Your task to perform on an android device: open a new tab in the chrome app Image 0: 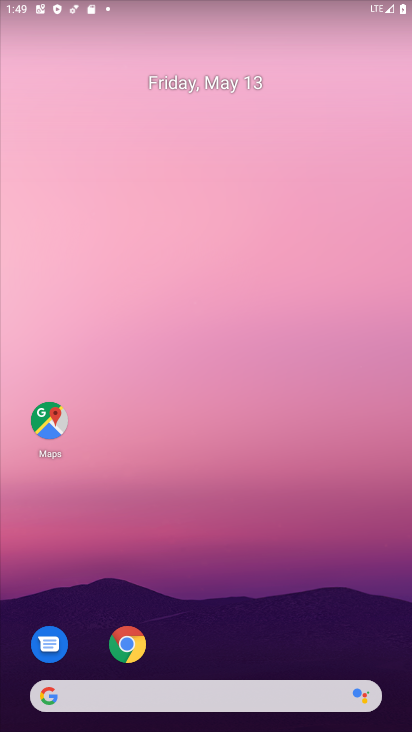
Step 0: drag from (336, 621) to (220, 35)
Your task to perform on an android device: open a new tab in the chrome app Image 1: 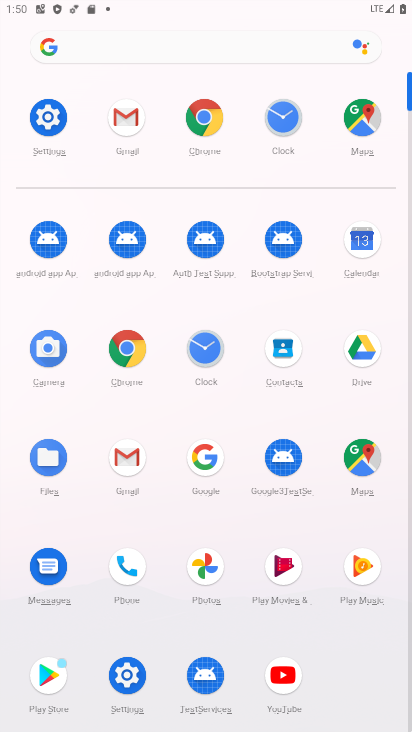
Step 1: click (137, 354)
Your task to perform on an android device: open a new tab in the chrome app Image 2: 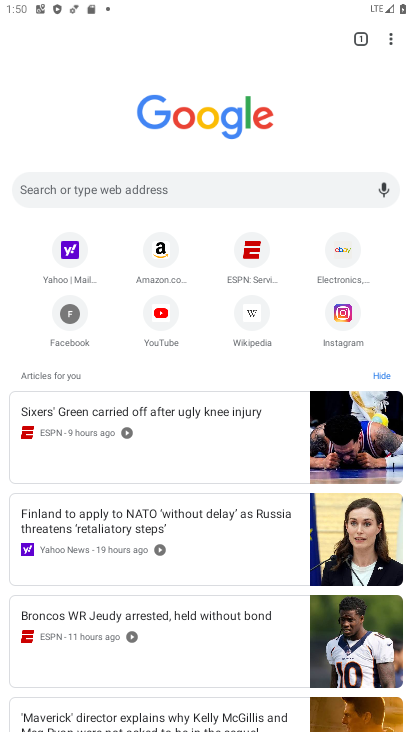
Step 2: click (396, 38)
Your task to perform on an android device: open a new tab in the chrome app Image 3: 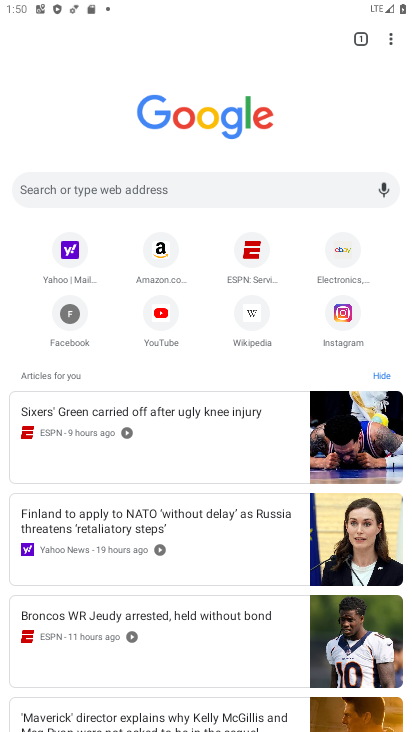
Step 3: click (392, 37)
Your task to perform on an android device: open a new tab in the chrome app Image 4: 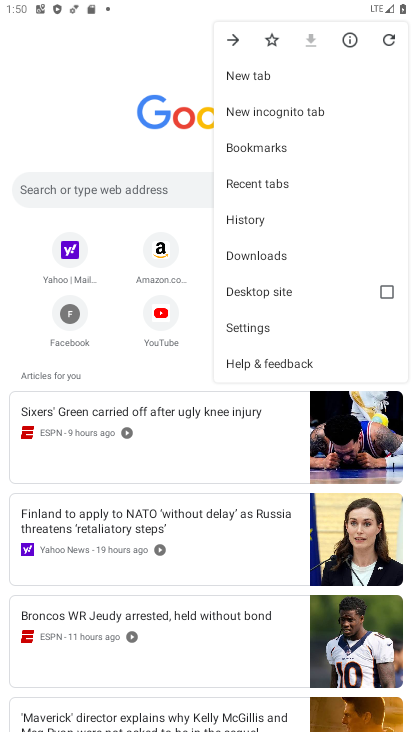
Step 4: click (318, 75)
Your task to perform on an android device: open a new tab in the chrome app Image 5: 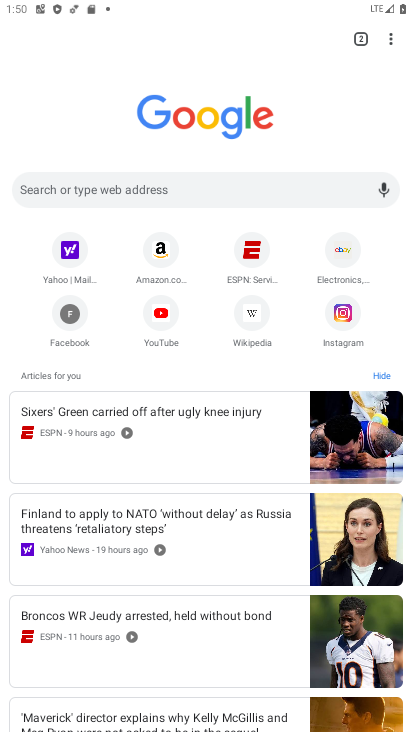
Step 5: task complete